Your task to perform on an android device: open a bookmark in the chrome app Image 0: 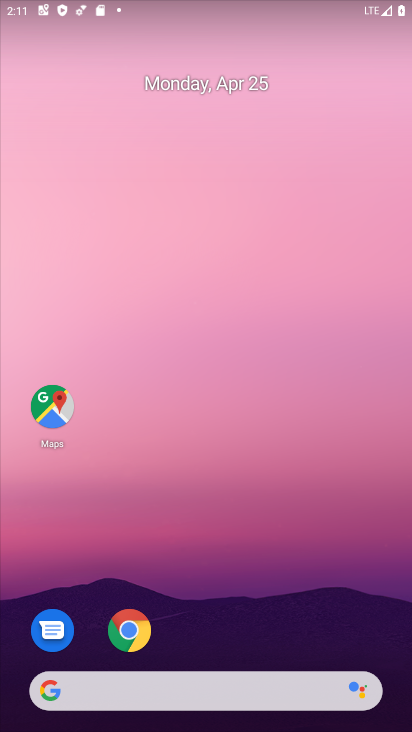
Step 0: drag from (363, 616) to (373, 76)
Your task to perform on an android device: open a bookmark in the chrome app Image 1: 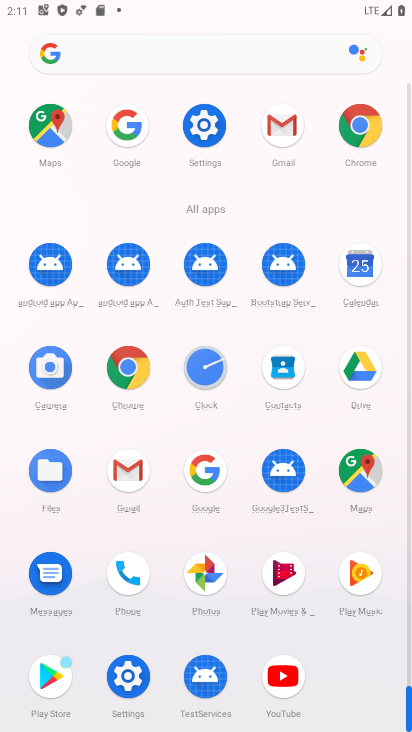
Step 1: click (360, 127)
Your task to perform on an android device: open a bookmark in the chrome app Image 2: 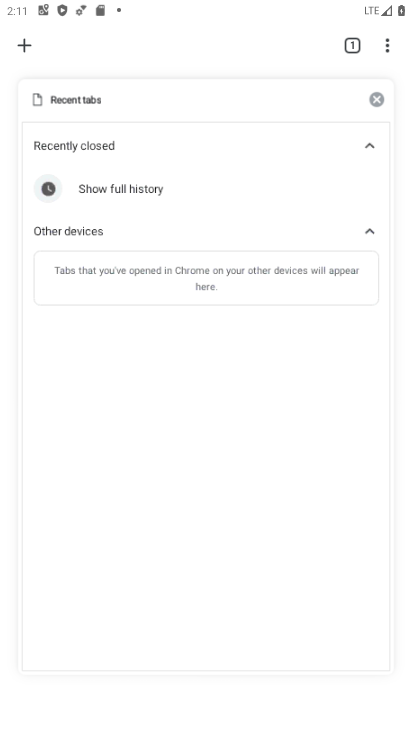
Step 2: click (25, 47)
Your task to perform on an android device: open a bookmark in the chrome app Image 3: 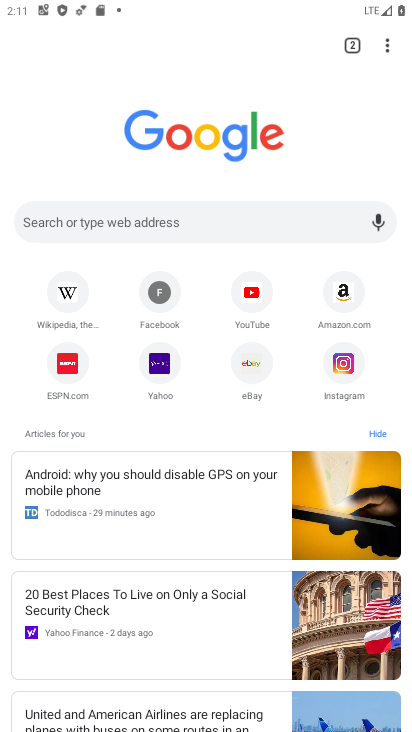
Step 3: click (390, 50)
Your task to perform on an android device: open a bookmark in the chrome app Image 4: 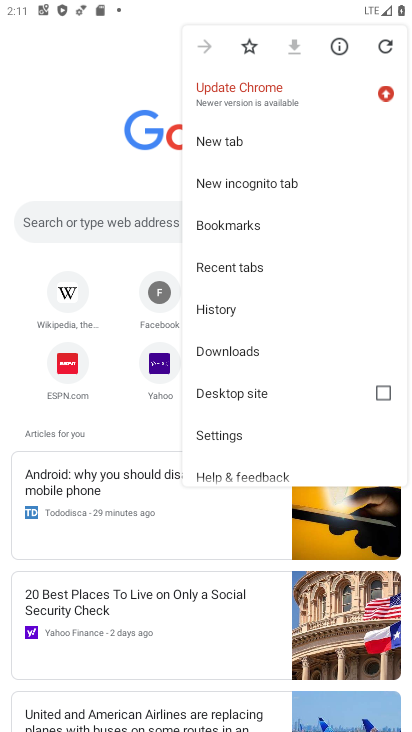
Step 4: click (255, 227)
Your task to perform on an android device: open a bookmark in the chrome app Image 5: 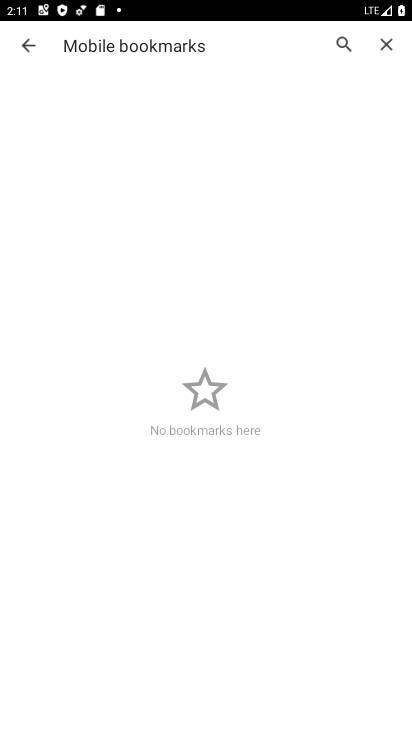
Step 5: task complete